Your task to perform on an android device: turn smart compose on in the gmail app Image 0: 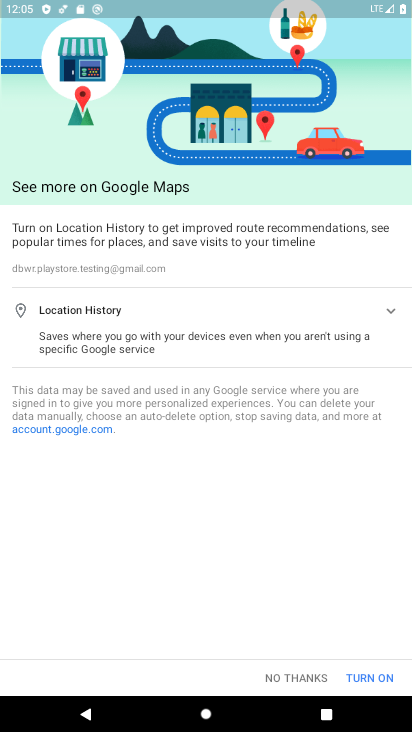
Step 0: press home button
Your task to perform on an android device: turn smart compose on in the gmail app Image 1: 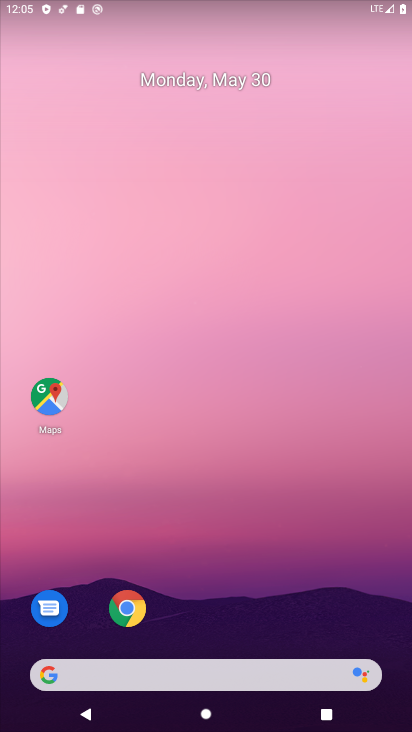
Step 1: drag from (219, 626) to (263, 199)
Your task to perform on an android device: turn smart compose on in the gmail app Image 2: 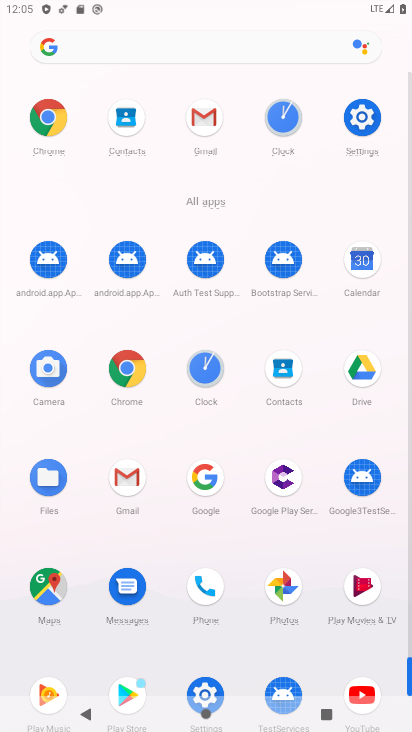
Step 2: click (117, 486)
Your task to perform on an android device: turn smart compose on in the gmail app Image 3: 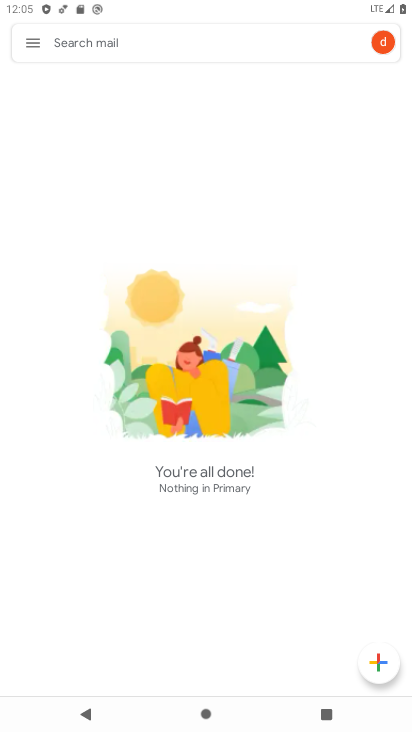
Step 3: click (27, 36)
Your task to perform on an android device: turn smart compose on in the gmail app Image 4: 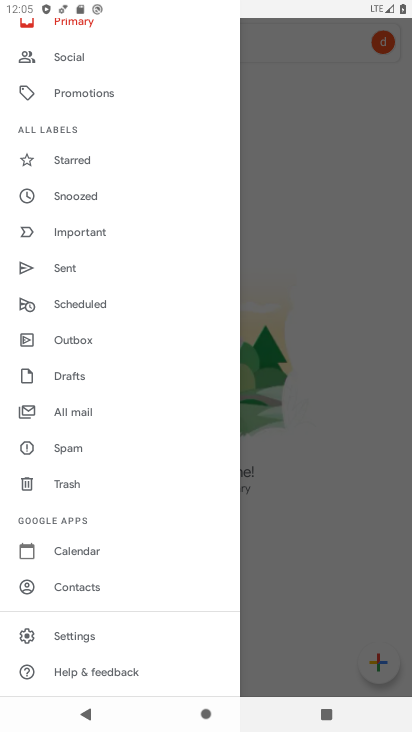
Step 4: drag from (113, 623) to (143, 401)
Your task to perform on an android device: turn smart compose on in the gmail app Image 5: 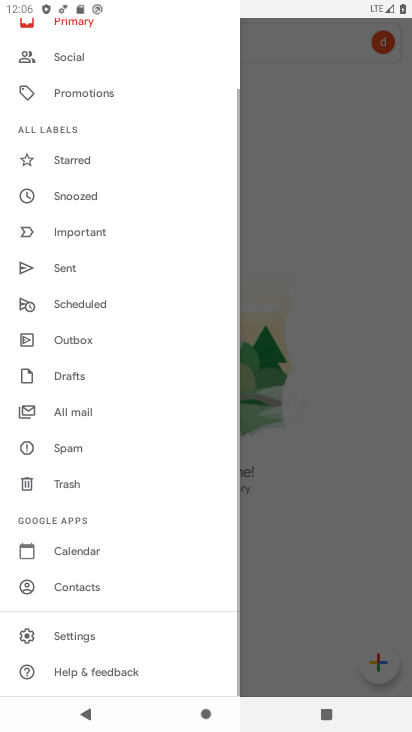
Step 5: click (92, 640)
Your task to perform on an android device: turn smart compose on in the gmail app Image 6: 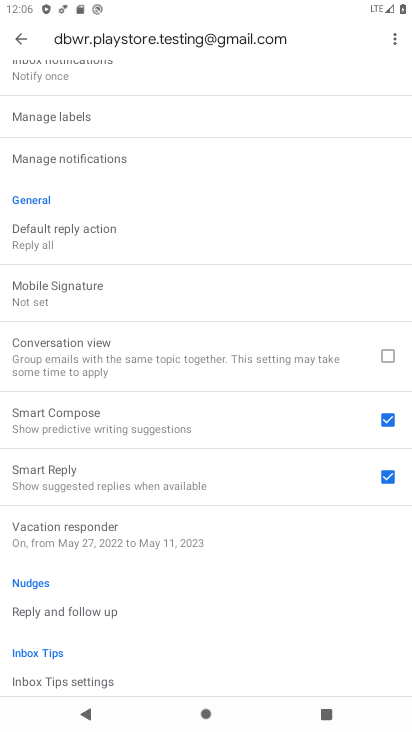
Step 6: task complete